Your task to perform on an android device: Go to notification settings Image 0: 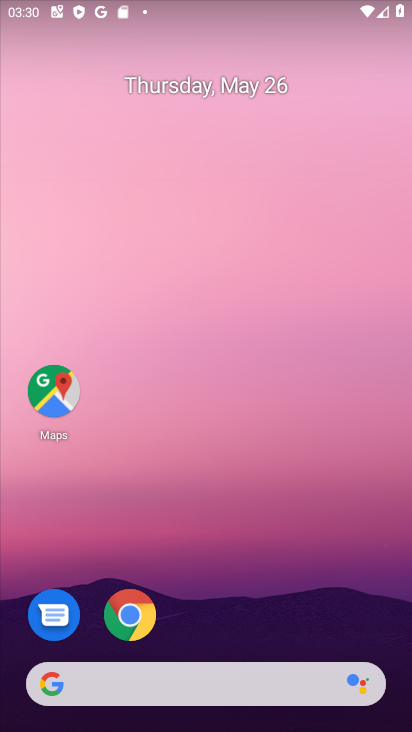
Step 0: drag from (225, 624) to (294, 120)
Your task to perform on an android device: Go to notification settings Image 1: 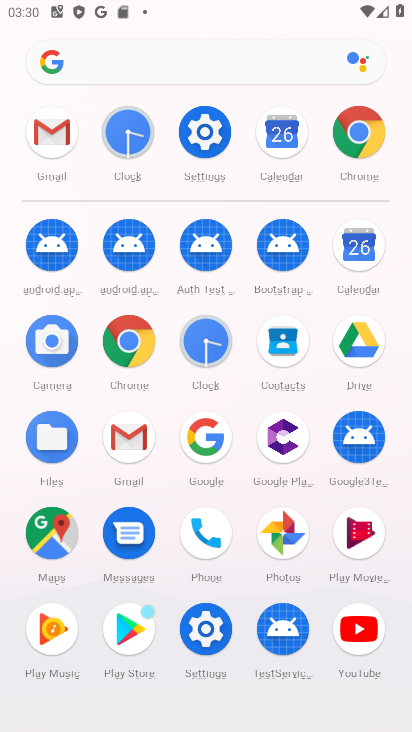
Step 1: click (210, 141)
Your task to perform on an android device: Go to notification settings Image 2: 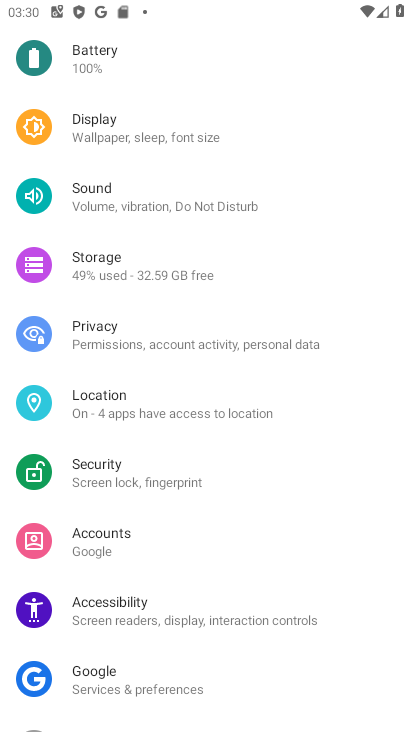
Step 2: drag from (135, 649) to (202, 295)
Your task to perform on an android device: Go to notification settings Image 3: 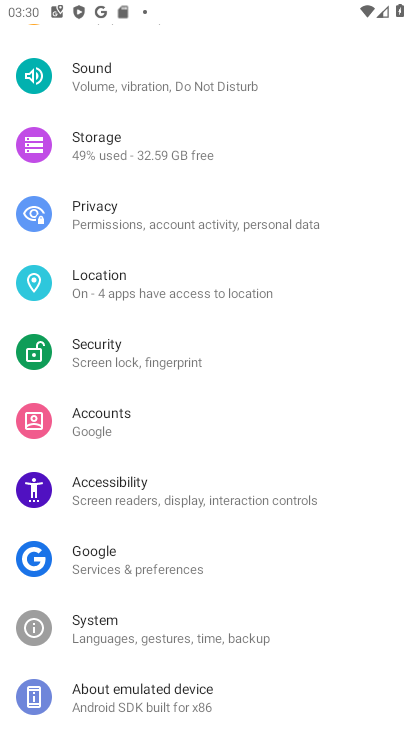
Step 3: drag from (204, 256) to (178, 729)
Your task to perform on an android device: Go to notification settings Image 4: 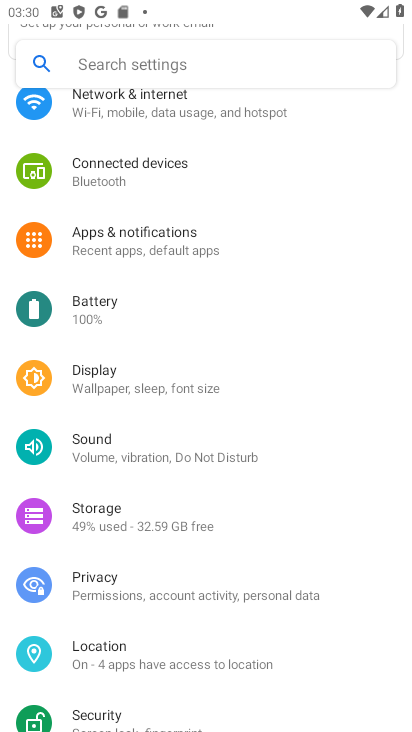
Step 4: drag from (185, 132) to (160, 614)
Your task to perform on an android device: Go to notification settings Image 5: 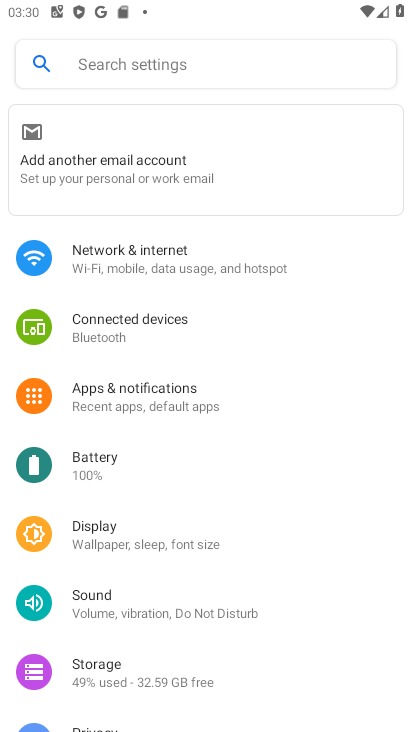
Step 5: click (107, 407)
Your task to perform on an android device: Go to notification settings Image 6: 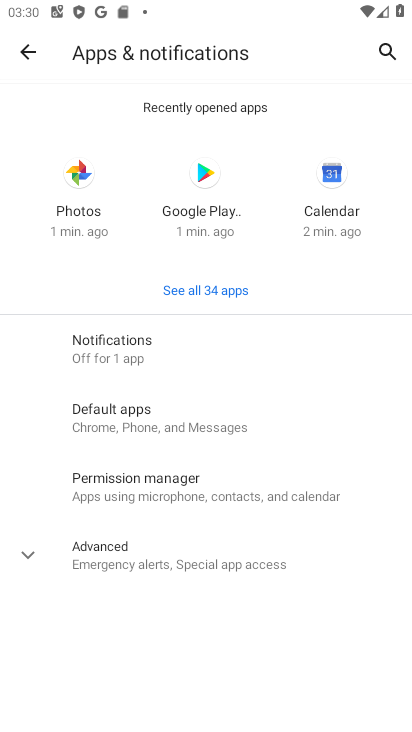
Step 6: click (116, 356)
Your task to perform on an android device: Go to notification settings Image 7: 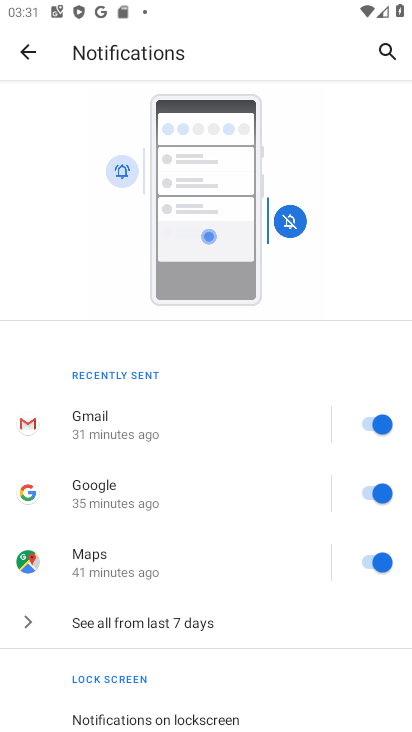
Step 7: task complete